Your task to perform on an android device: Open settings Image 0: 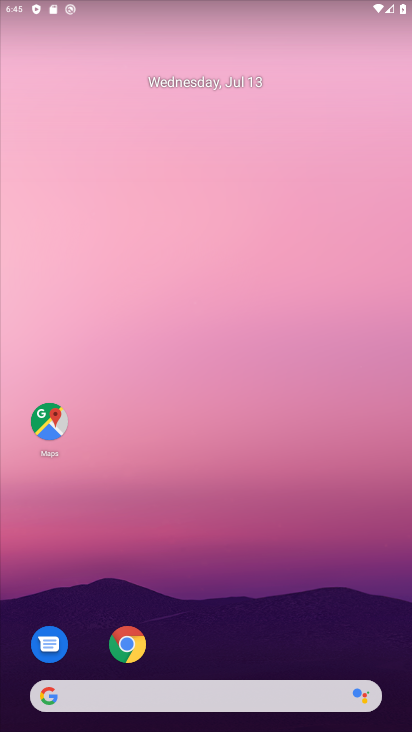
Step 0: drag from (238, 558) to (218, 79)
Your task to perform on an android device: Open settings Image 1: 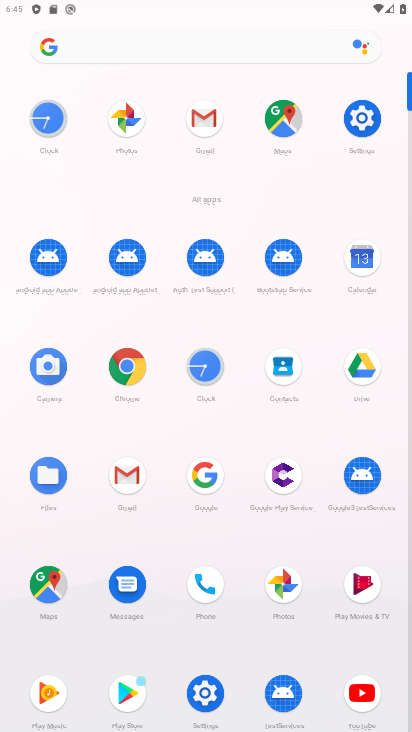
Step 1: click (362, 119)
Your task to perform on an android device: Open settings Image 2: 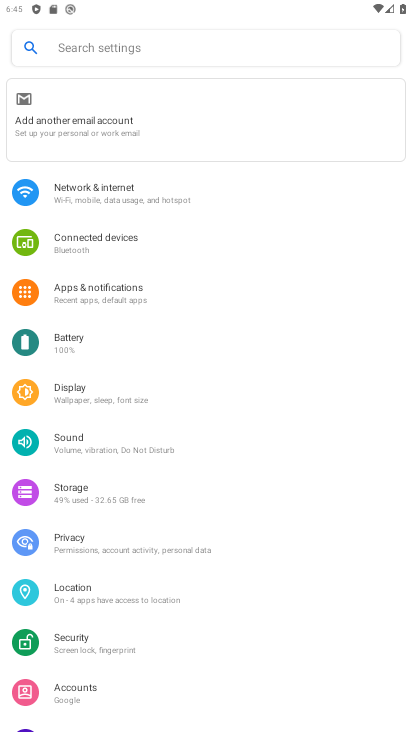
Step 2: task complete